Your task to perform on an android device: clear history in the chrome app Image 0: 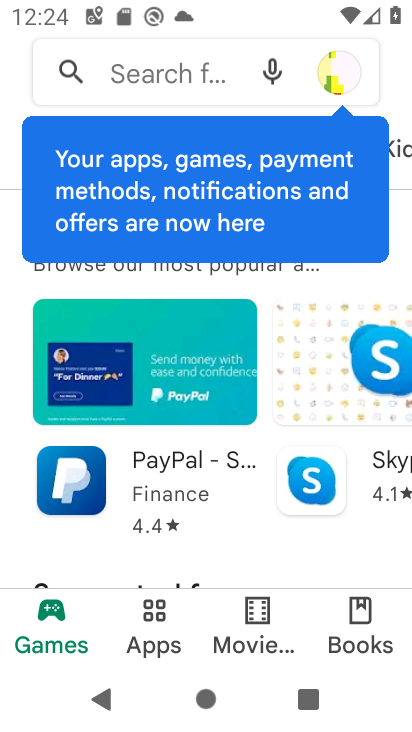
Step 0: press home button
Your task to perform on an android device: clear history in the chrome app Image 1: 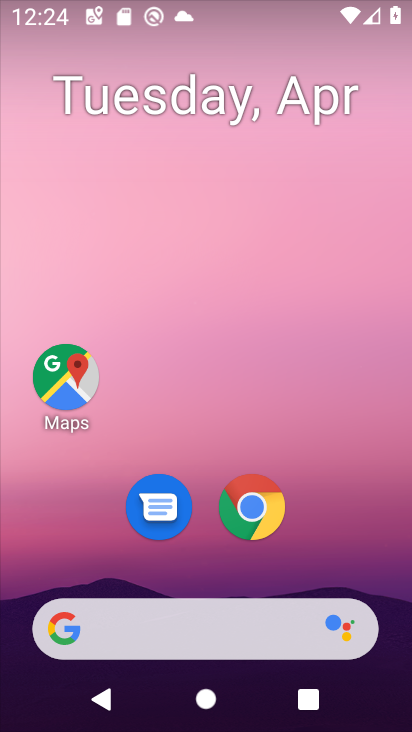
Step 1: click (260, 512)
Your task to perform on an android device: clear history in the chrome app Image 2: 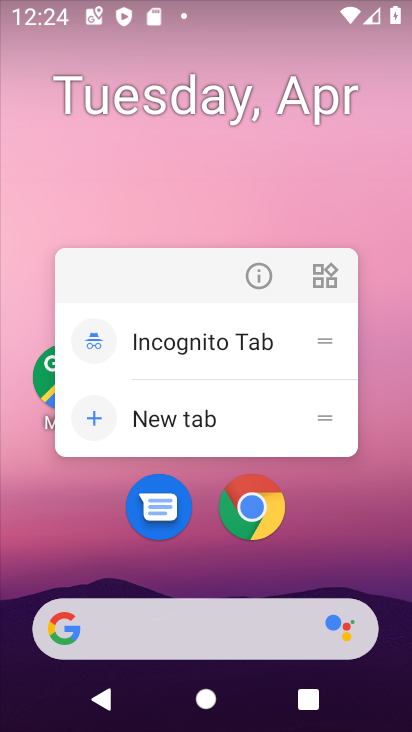
Step 2: click (242, 511)
Your task to perform on an android device: clear history in the chrome app Image 3: 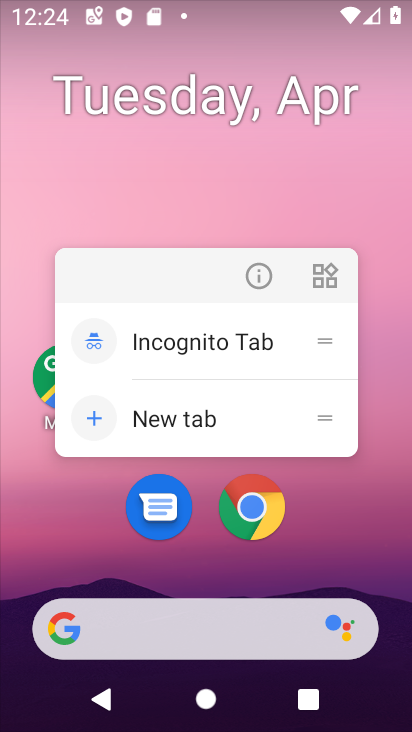
Step 3: click (237, 511)
Your task to perform on an android device: clear history in the chrome app Image 4: 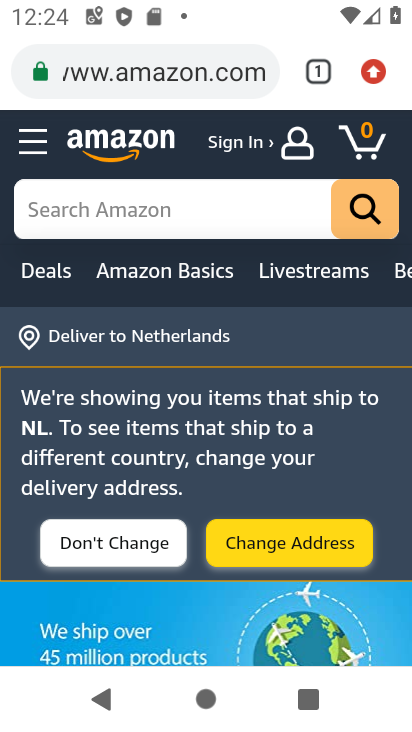
Step 4: click (363, 79)
Your task to perform on an android device: clear history in the chrome app Image 5: 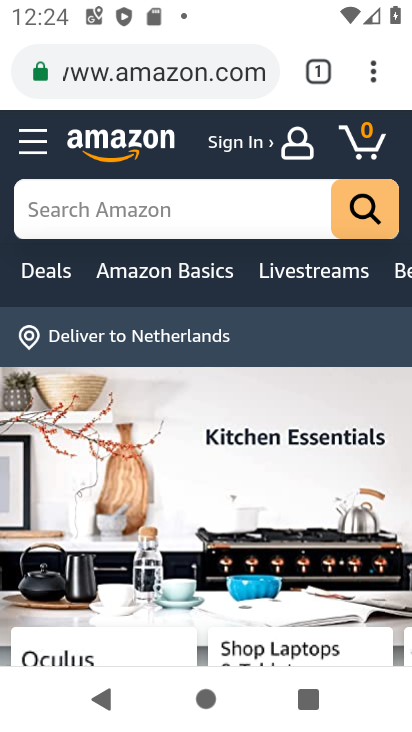
Step 5: click (371, 71)
Your task to perform on an android device: clear history in the chrome app Image 6: 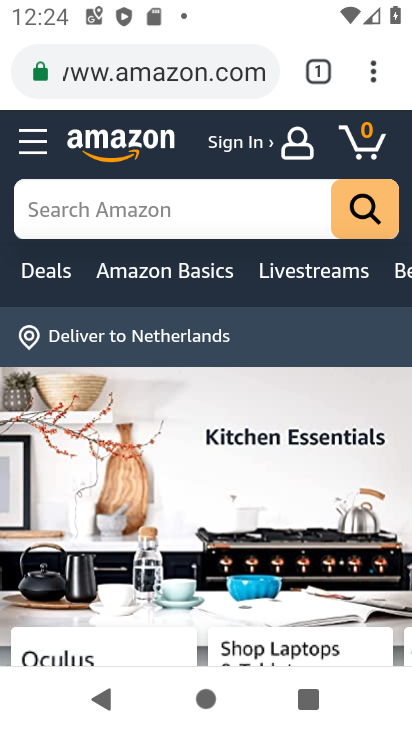
Step 6: click (365, 77)
Your task to perform on an android device: clear history in the chrome app Image 7: 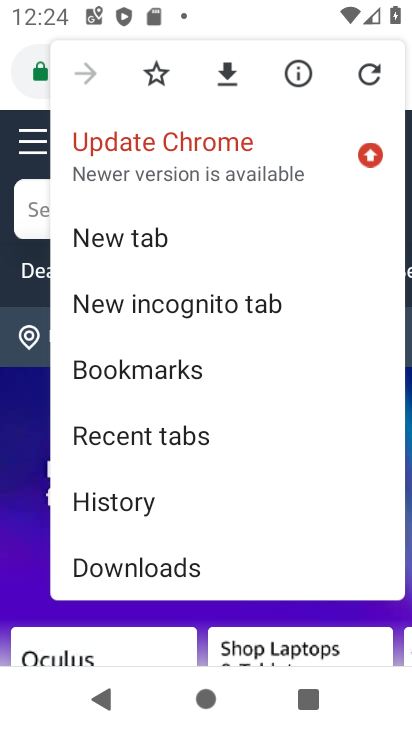
Step 7: click (142, 494)
Your task to perform on an android device: clear history in the chrome app Image 8: 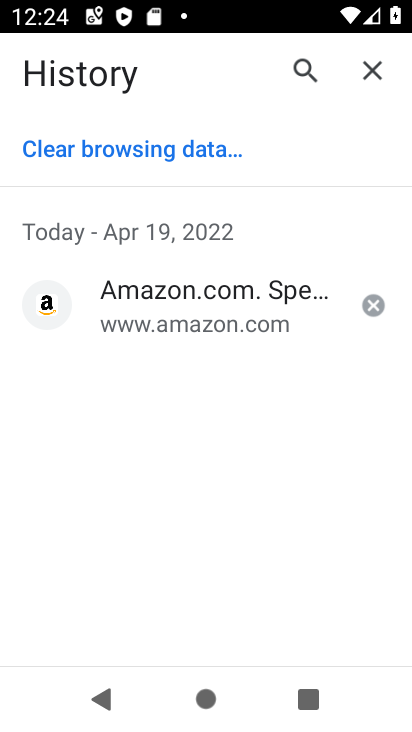
Step 8: click (113, 147)
Your task to perform on an android device: clear history in the chrome app Image 9: 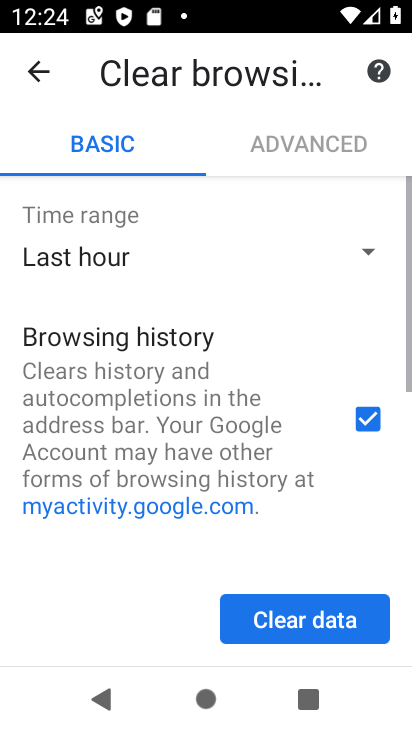
Step 9: click (291, 619)
Your task to perform on an android device: clear history in the chrome app Image 10: 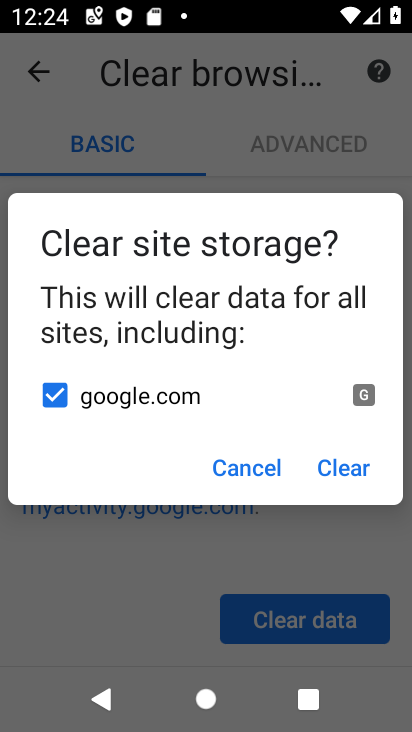
Step 10: click (317, 457)
Your task to perform on an android device: clear history in the chrome app Image 11: 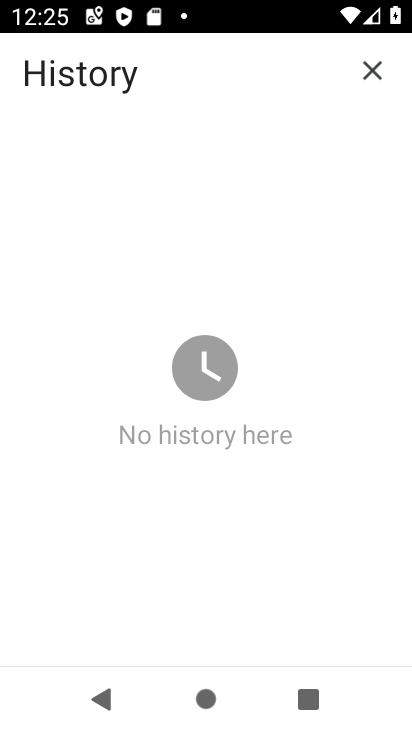
Step 11: task complete